Your task to perform on an android device: open a new tab in the chrome app Image 0: 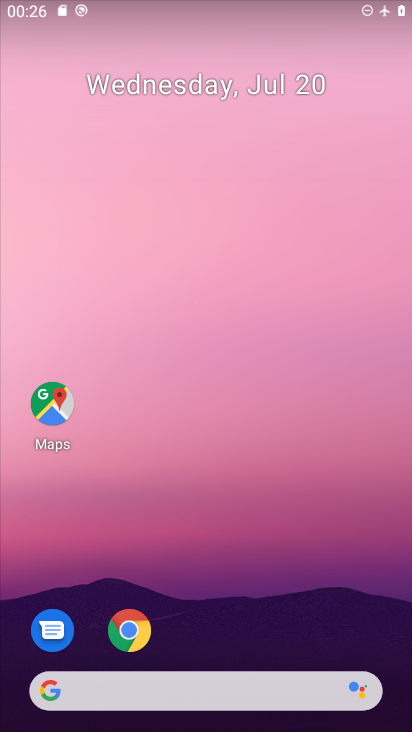
Step 0: click (139, 630)
Your task to perform on an android device: open a new tab in the chrome app Image 1: 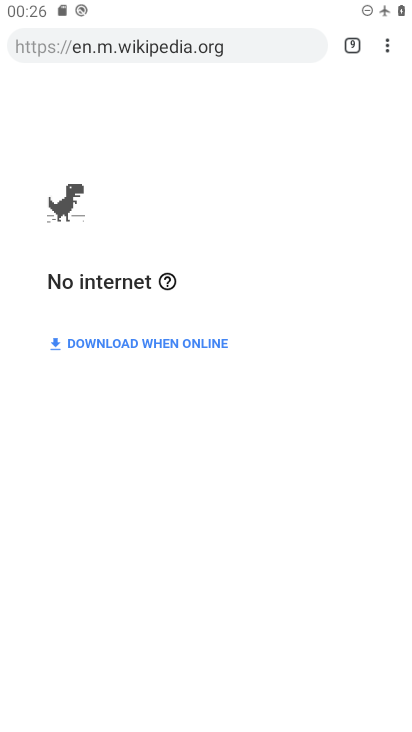
Step 1: click (352, 47)
Your task to perform on an android device: open a new tab in the chrome app Image 2: 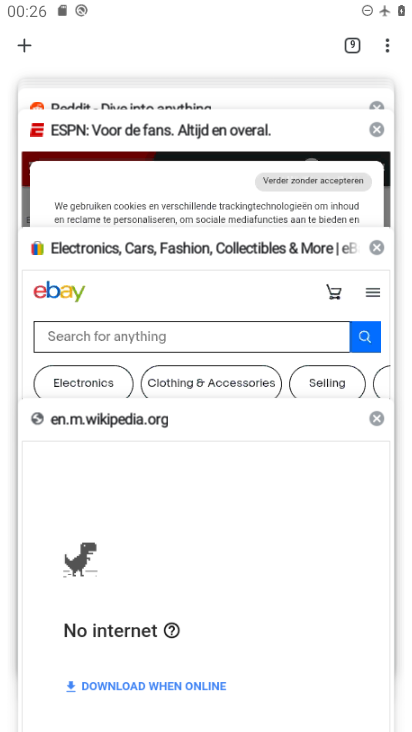
Step 2: click (30, 43)
Your task to perform on an android device: open a new tab in the chrome app Image 3: 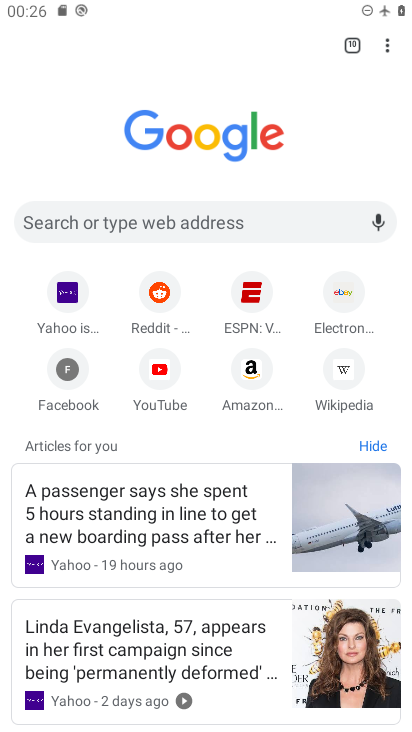
Step 3: task complete